Your task to perform on an android device: find which apps use the phone's location Image 0: 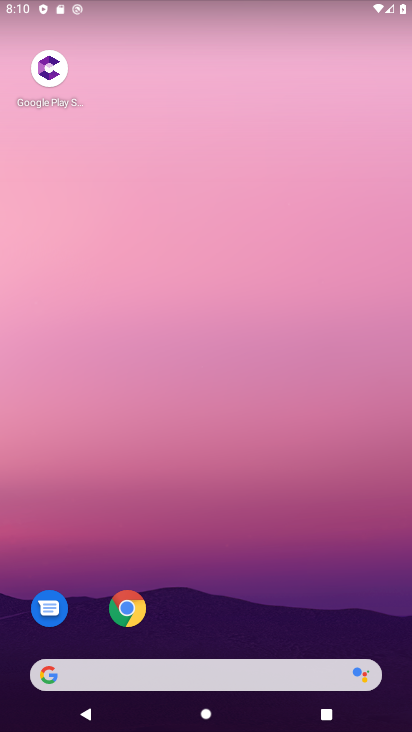
Step 0: drag from (172, 658) to (185, 443)
Your task to perform on an android device: find which apps use the phone's location Image 1: 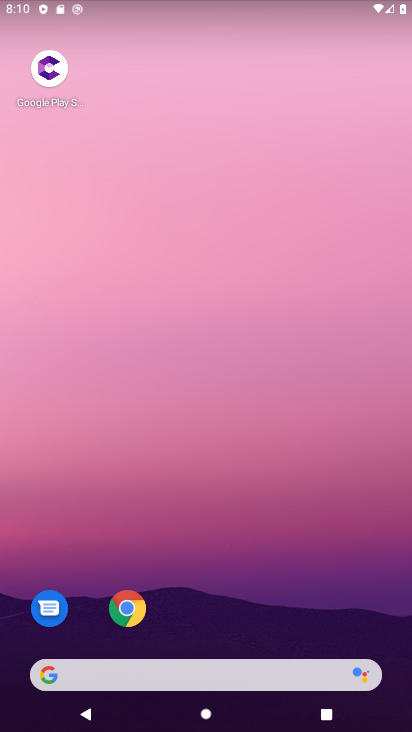
Step 1: drag from (222, 628) to (291, 150)
Your task to perform on an android device: find which apps use the phone's location Image 2: 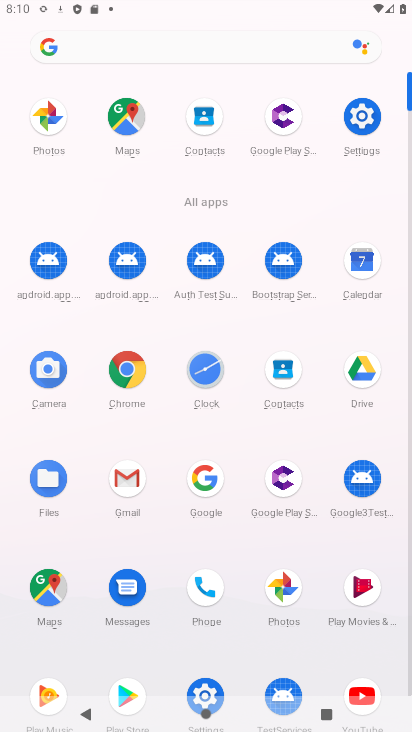
Step 2: click (367, 104)
Your task to perform on an android device: find which apps use the phone's location Image 3: 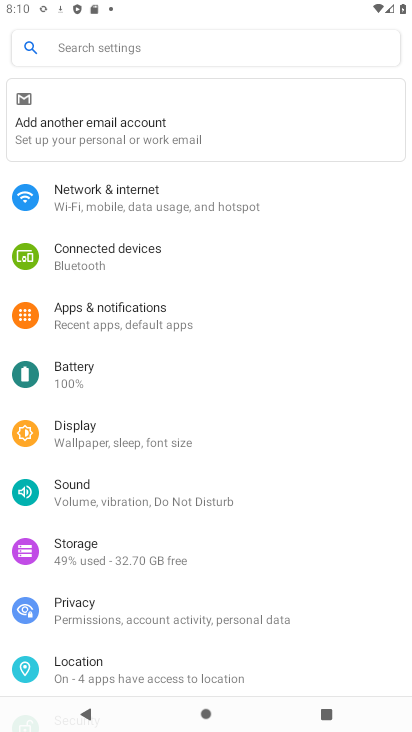
Step 3: click (85, 669)
Your task to perform on an android device: find which apps use the phone's location Image 4: 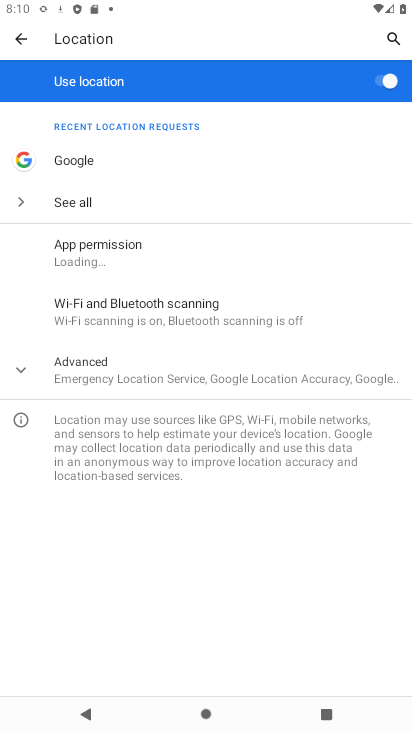
Step 4: click (62, 244)
Your task to perform on an android device: find which apps use the phone's location Image 5: 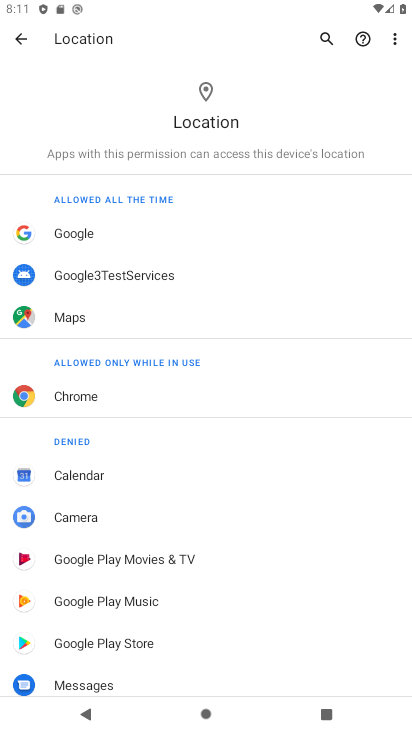
Step 5: task complete